Your task to perform on an android device: move an email to a new category in the gmail app Image 0: 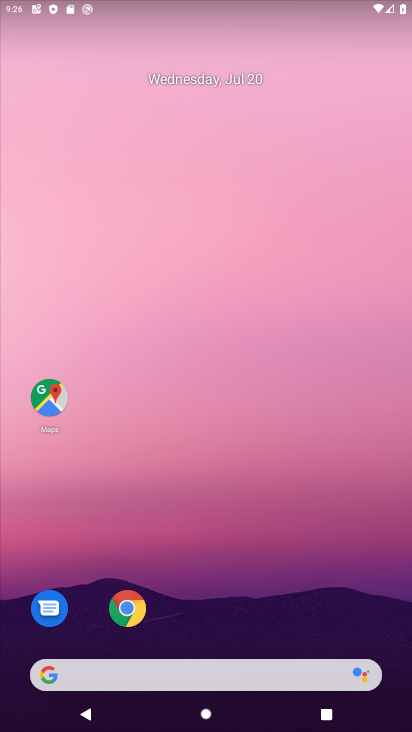
Step 0: drag from (244, 705) to (293, 6)
Your task to perform on an android device: move an email to a new category in the gmail app Image 1: 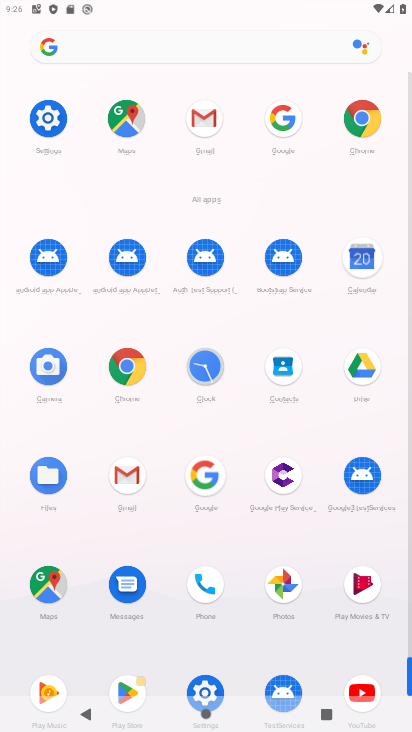
Step 1: click (196, 123)
Your task to perform on an android device: move an email to a new category in the gmail app Image 2: 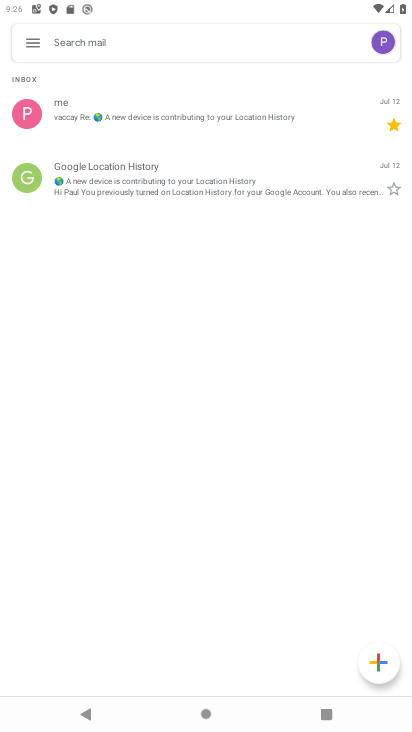
Step 2: click (197, 116)
Your task to perform on an android device: move an email to a new category in the gmail app Image 3: 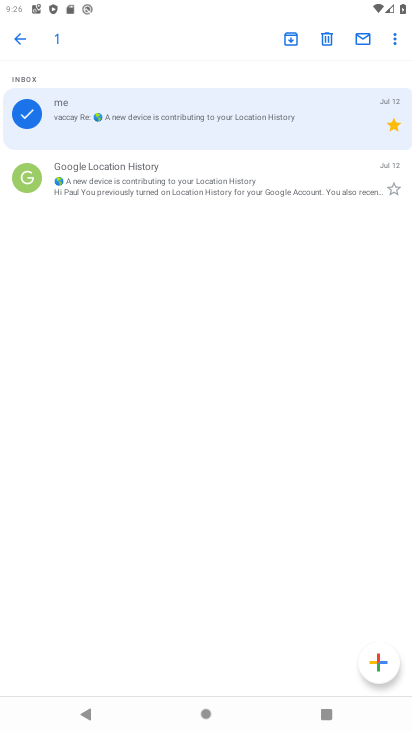
Step 3: click (396, 36)
Your task to perform on an android device: move an email to a new category in the gmail app Image 4: 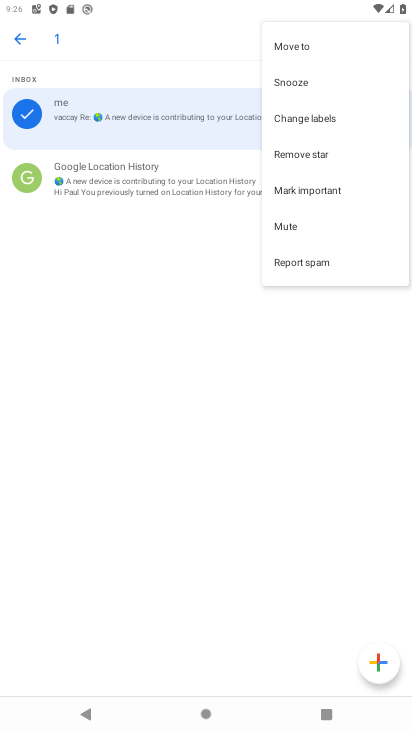
Step 4: click (311, 126)
Your task to perform on an android device: move an email to a new category in the gmail app Image 5: 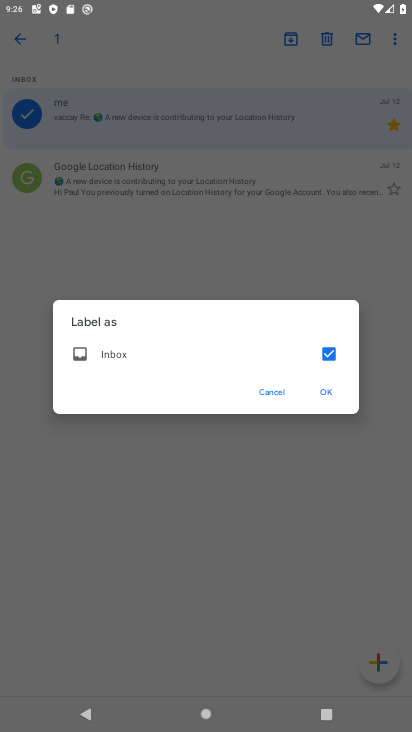
Step 5: click (327, 389)
Your task to perform on an android device: move an email to a new category in the gmail app Image 6: 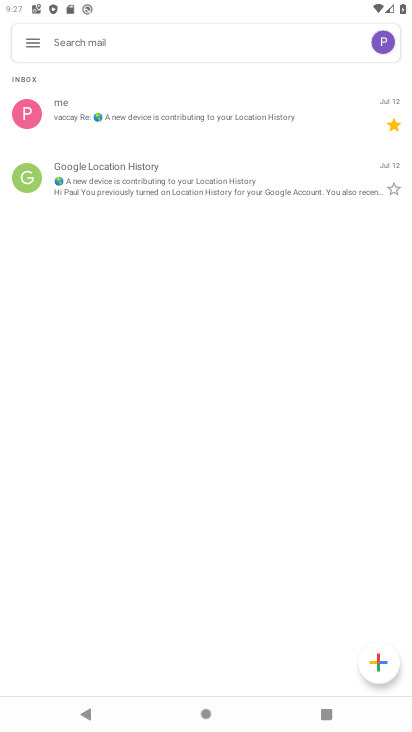
Step 6: task complete